Your task to perform on an android device: Open eBay Image 0: 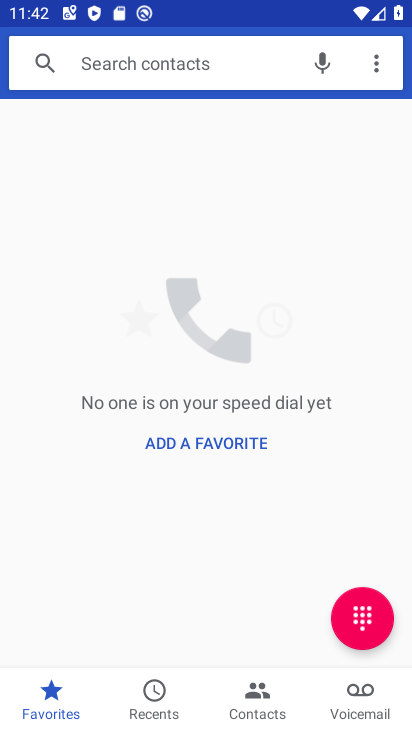
Step 0: press home button
Your task to perform on an android device: Open eBay Image 1: 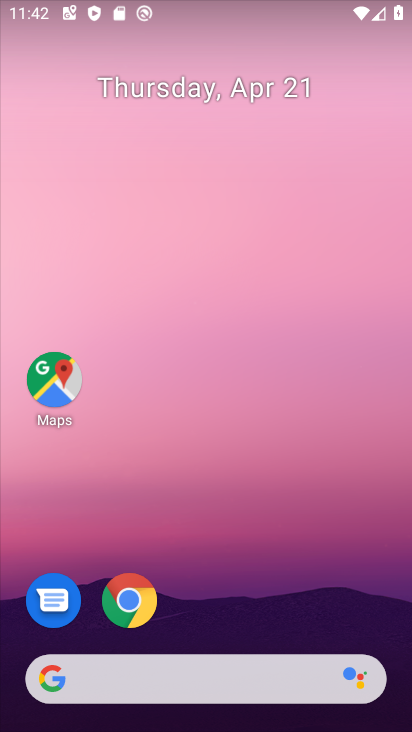
Step 1: drag from (255, 593) to (267, 171)
Your task to perform on an android device: Open eBay Image 2: 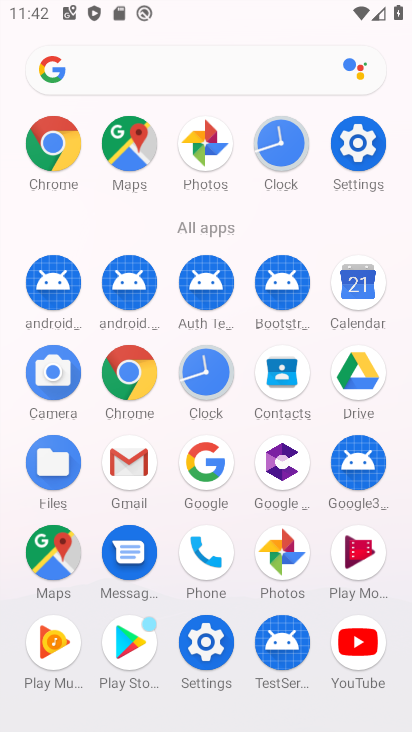
Step 2: click (57, 163)
Your task to perform on an android device: Open eBay Image 3: 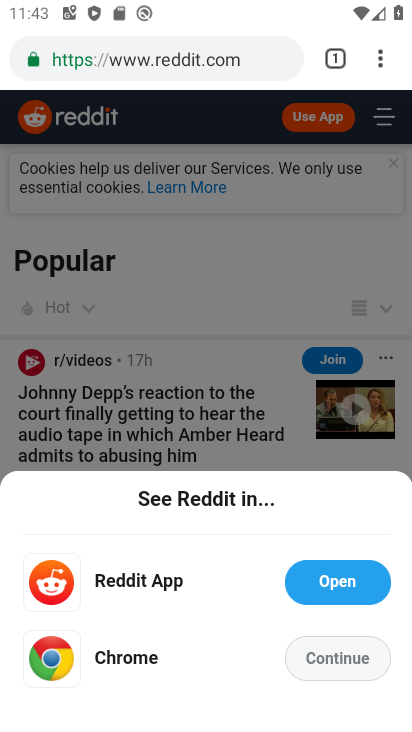
Step 3: click (177, 58)
Your task to perform on an android device: Open eBay Image 4: 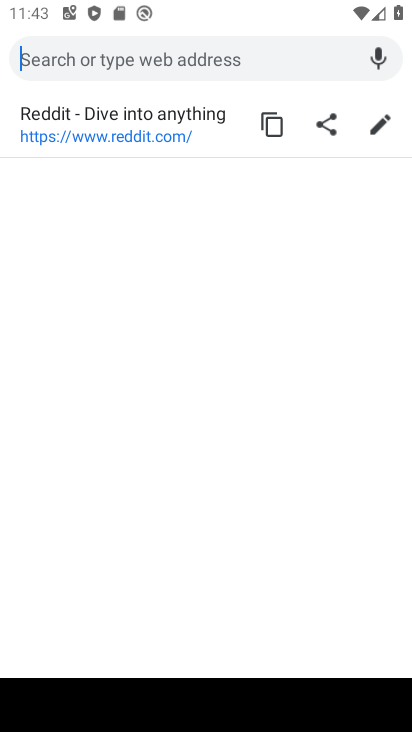
Step 4: type "ebay"
Your task to perform on an android device: Open eBay Image 5: 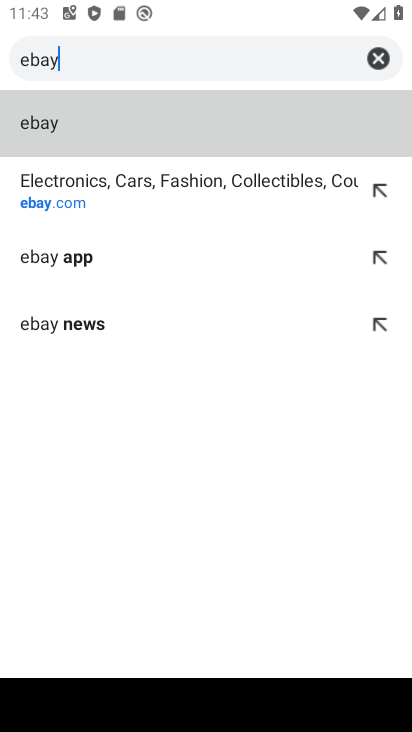
Step 5: click (37, 199)
Your task to perform on an android device: Open eBay Image 6: 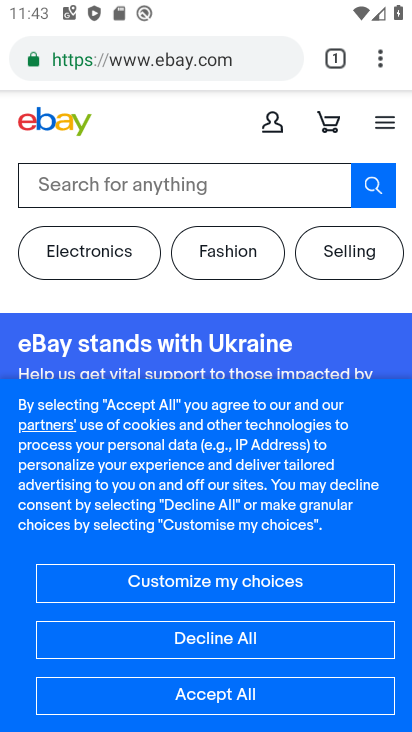
Step 6: task complete